Your task to perform on an android device: toggle data saver in the chrome app Image 0: 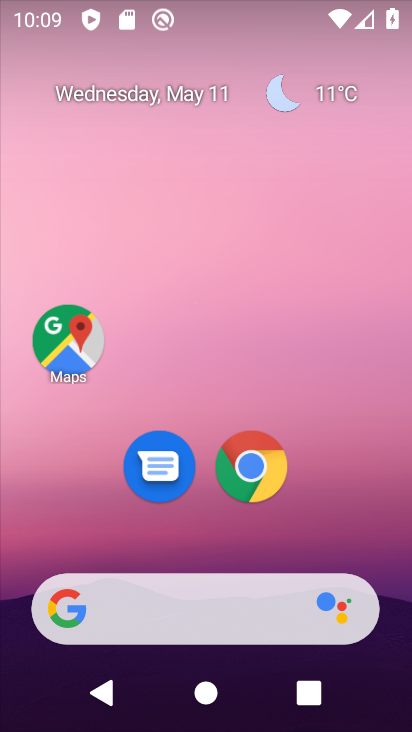
Step 0: press home button
Your task to perform on an android device: toggle data saver in the chrome app Image 1: 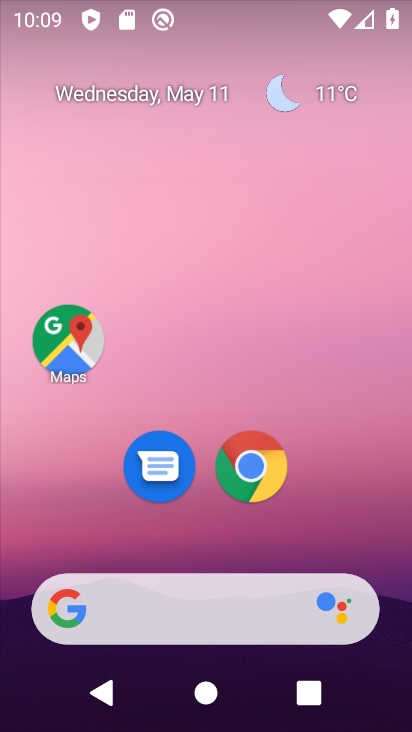
Step 1: click (275, 473)
Your task to perform on an android device: toggle data saver in the chrome app Image 2: 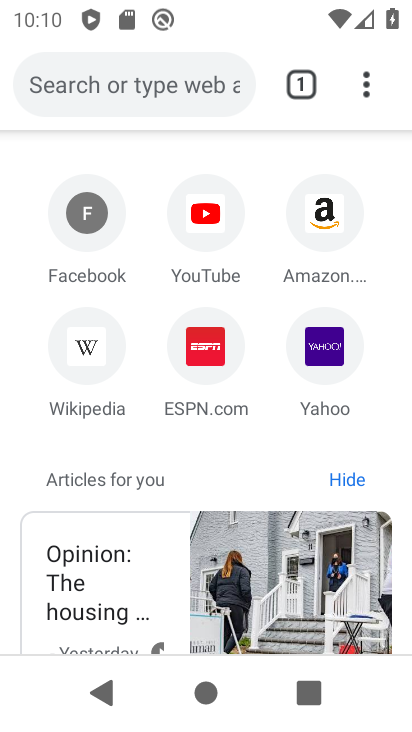
Step 2: click (372, 93)
Your task to perform on an android device: toggle data saver in the chrome app Image 3: 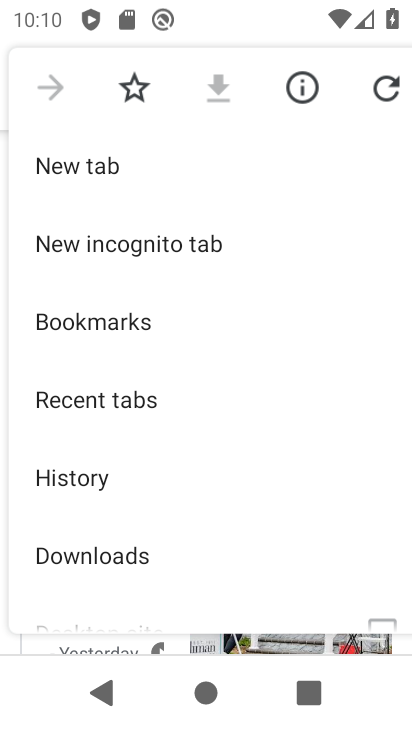
Step 3: drag from (273, 556) to (209, 219)
Your task to perform on an android device: toggle data saver in the chrome app Image 4: 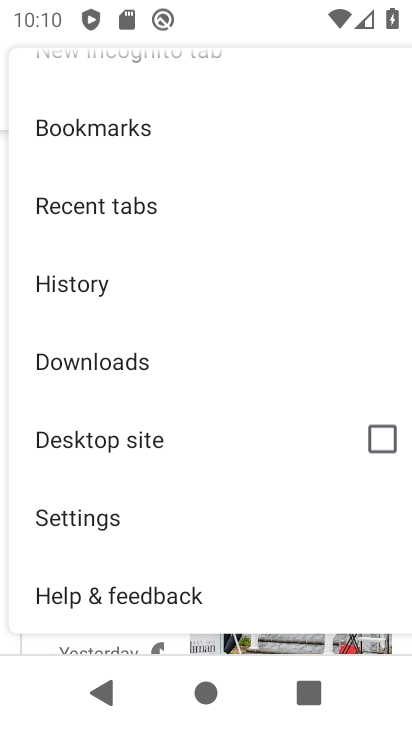
Step 4: drag from (265, 536) to (227, 389)
Your task to perform on an android device: toggle data saver in the chrome app Image 5: 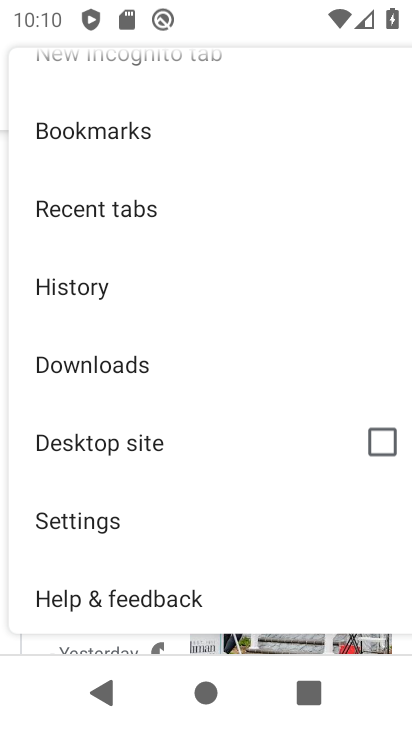
Step 5: click (139, 517)
Your task to perform on an android device: toggle data saver in the chrome app Image 6: 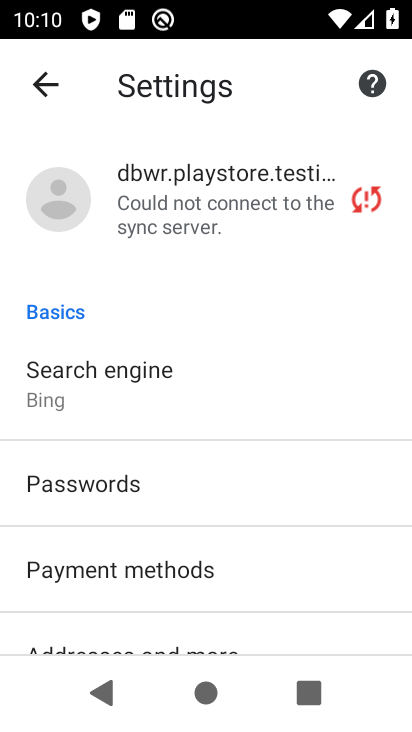
Step 6: drag from (265, 589) to (227, 282)
Your task to perform on an android device: toggle data saver in the chrome app Image 7: 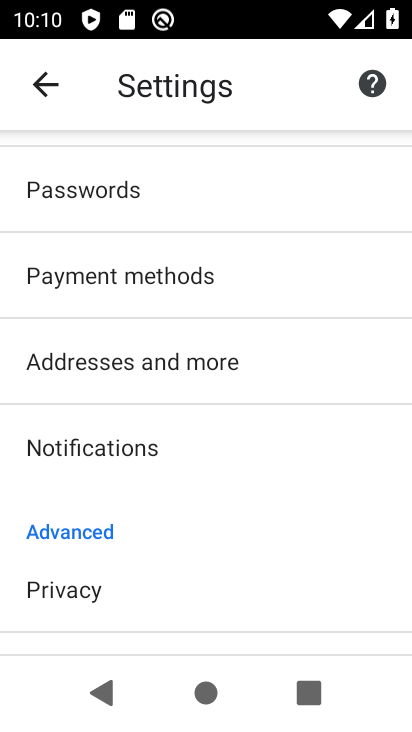
Step 7: drag from (265, 538) to (228, 315)
Your task to perform on an android device: toggle data saver in the chrome app Image 8: 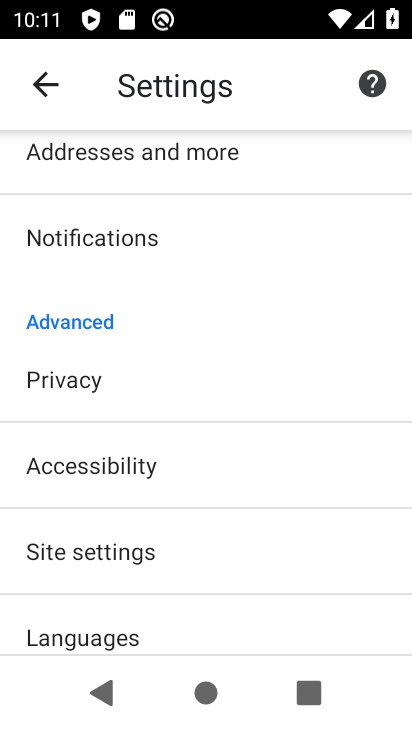
Step 8: drag from (229, 513) to (181, 236)
Your task to perform on an android device: toggle data saver in the chrome app Image 9: 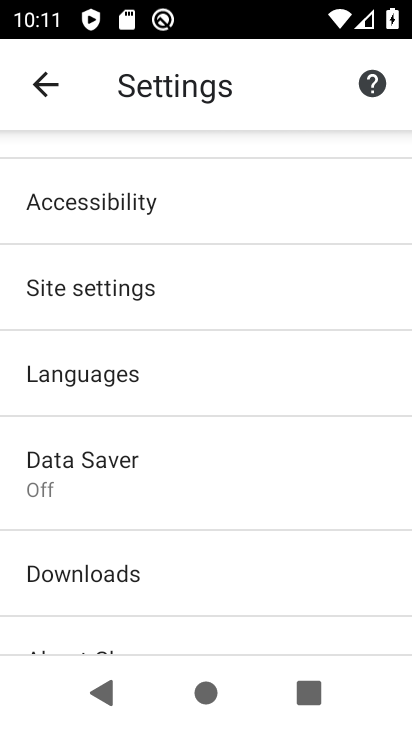
Step 9: click (175, 486)
Your task to perform on an android device: toggle data saver in the chrome app Image 10: 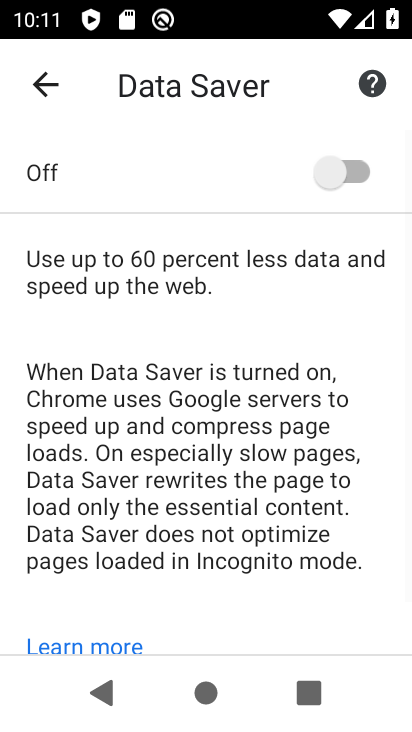
Step 10: click (352, 171)
Your task to perform on an android device: toggle data saver in the chrome app Image 11: 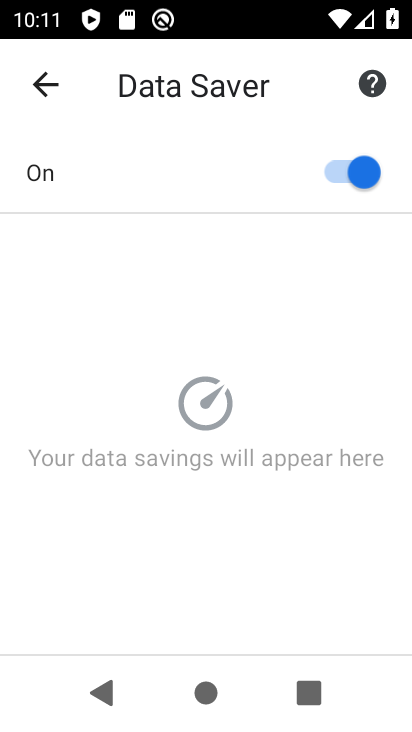
Step 11: task complete